Your task to perform on an android device: Open privacy settings Image 0: 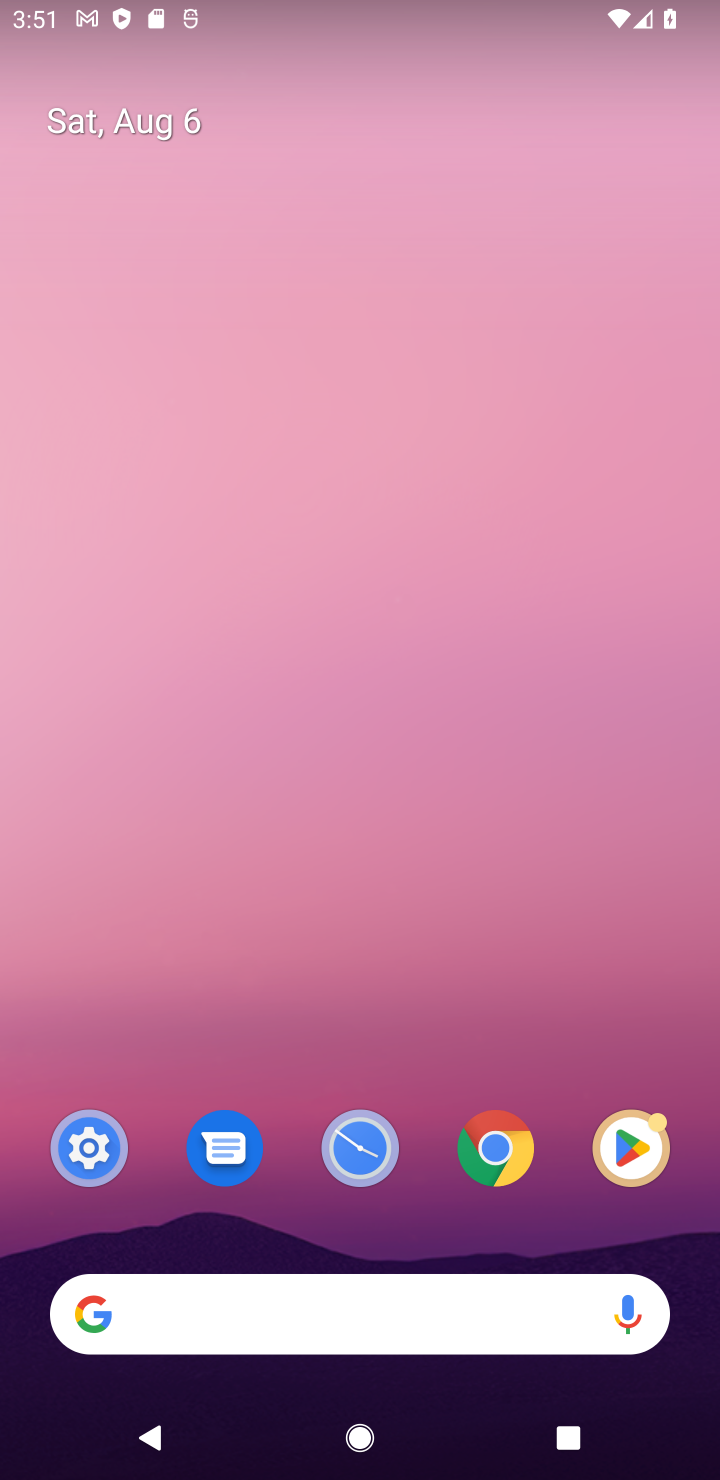
Step 0: click (106, 1171)
Your task to perform on an android device: Open privacy settings Image 1: 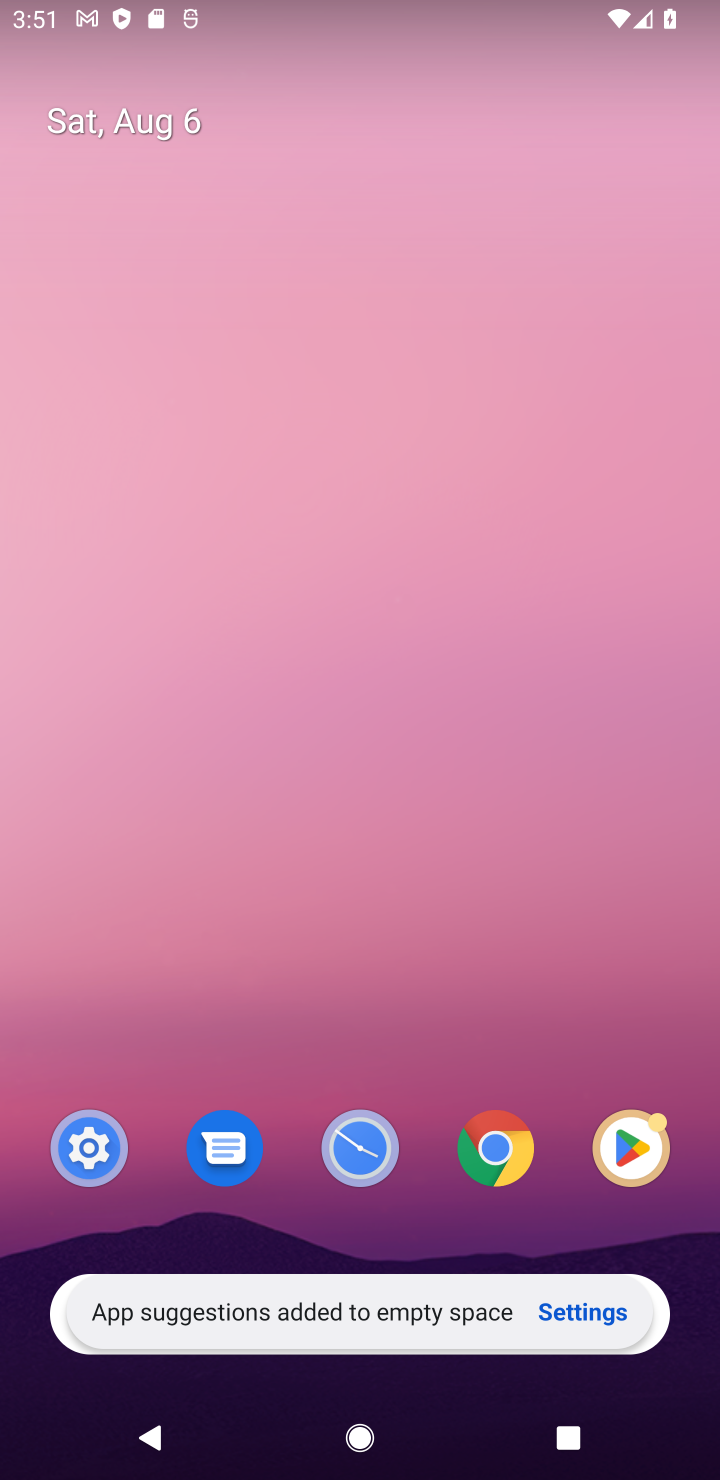
Step 1: click (95, 1140)
Your task to perform on an android device: Open privacy settings Image 2: 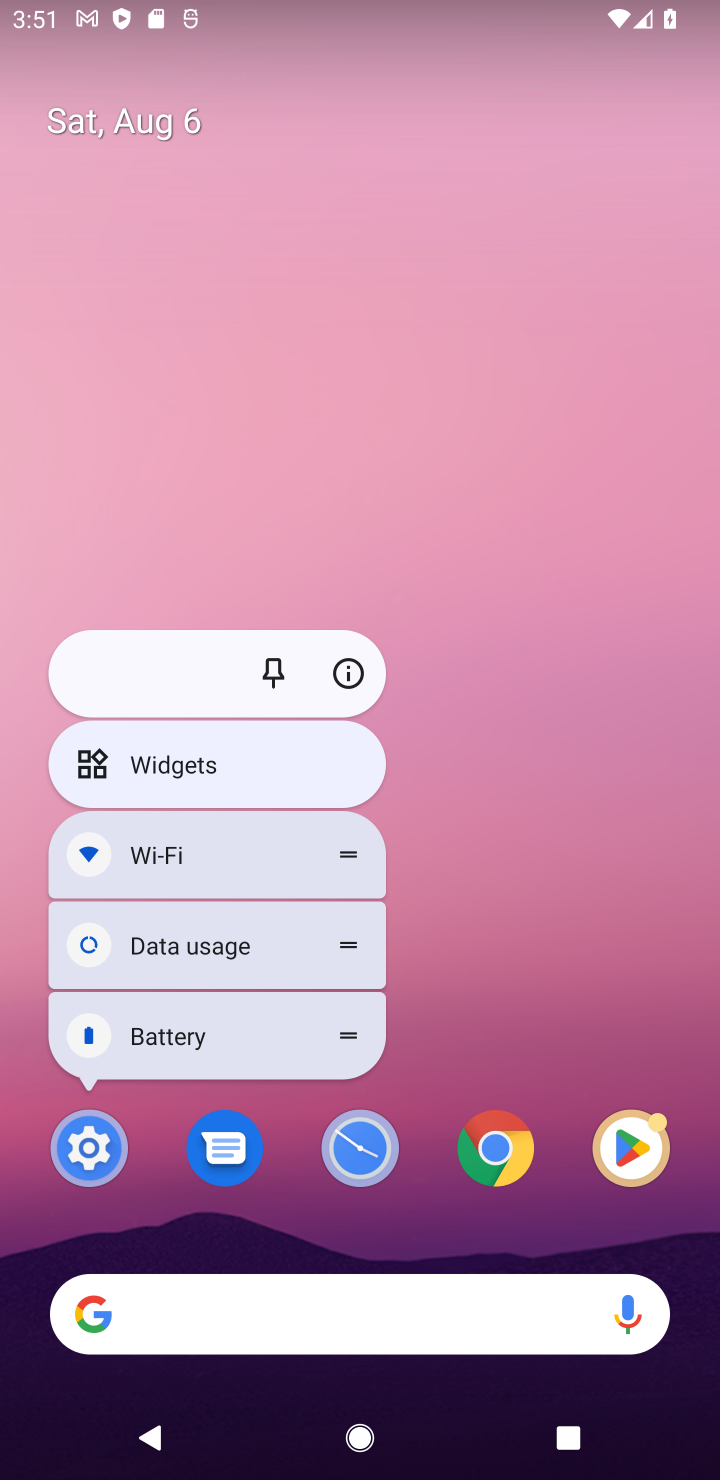
Step 2: click (95, 1140)
Your task to perform on an android device: Open privacy settings Image 3: 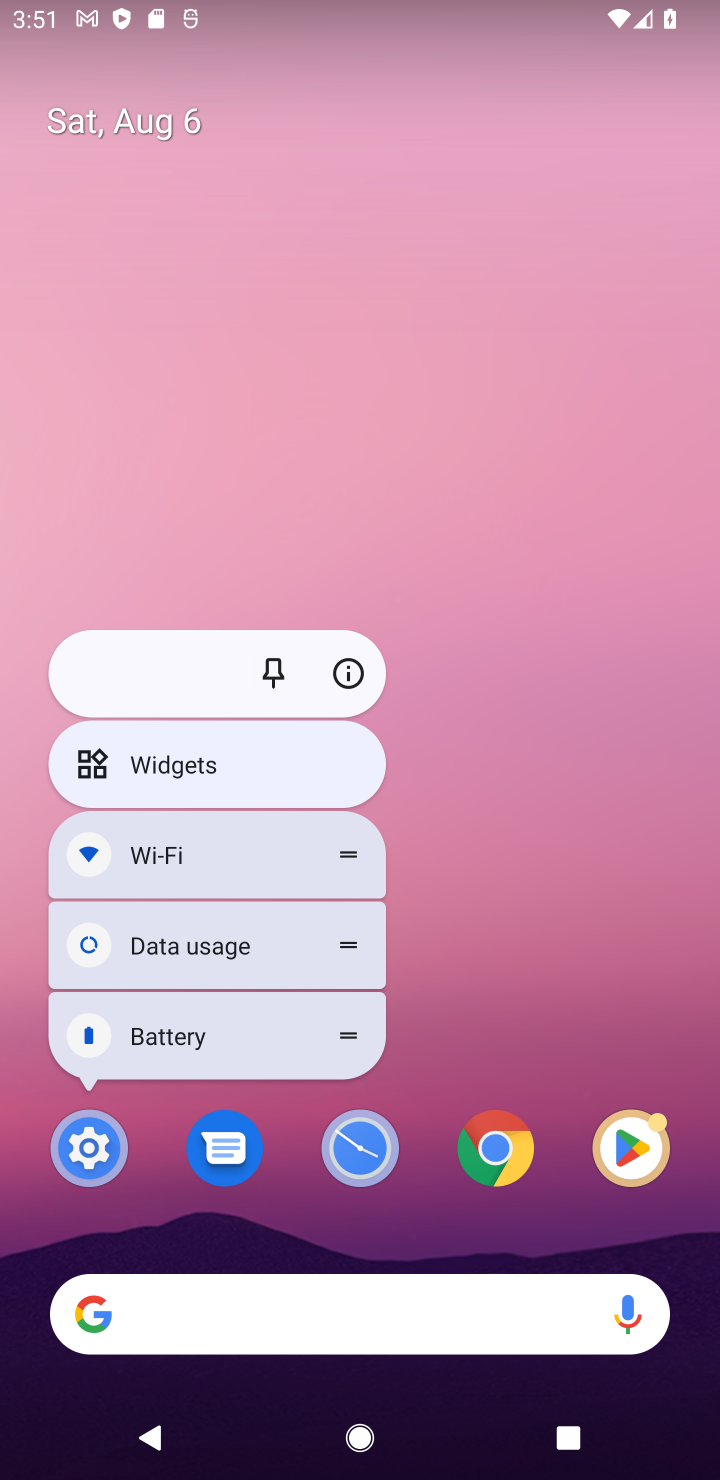
Step 3: click (347, 671)
Your task to perform on an android device: Open privacy settings Image 4: 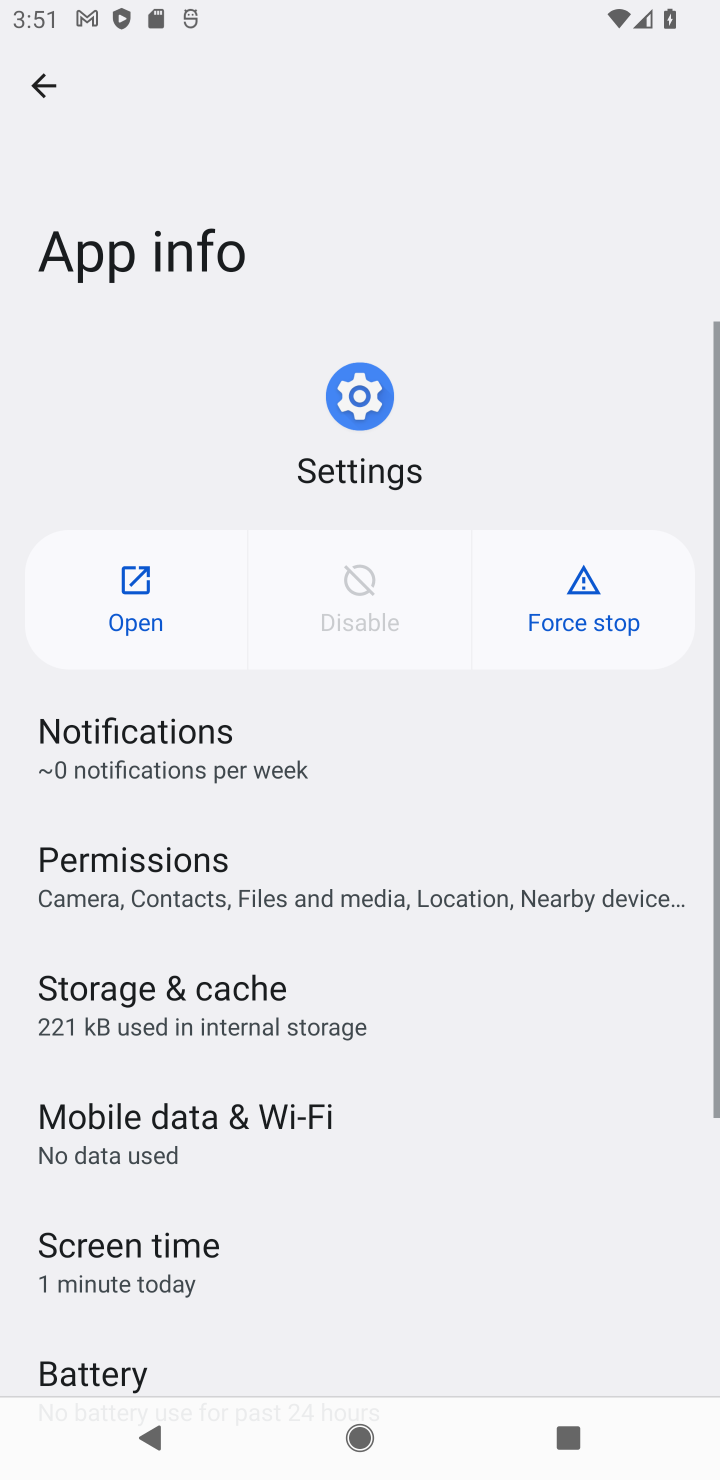
Step 4: click (133, 594)
Your task to perform on an android device: Open privacy settings Image 5: 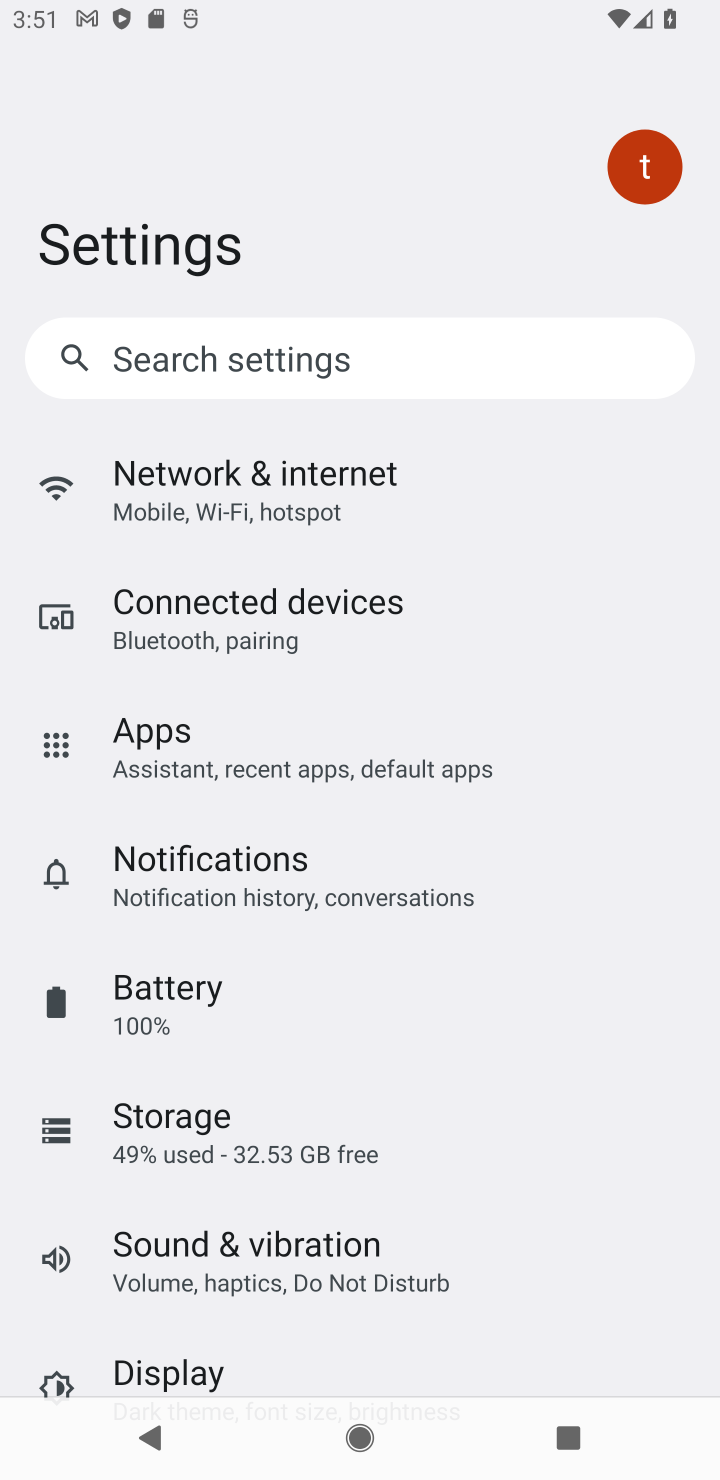
Step 5: drag from (239, 1072) to (236, 367)
Your task to perform on an android device: Open privacy settings Image 6: 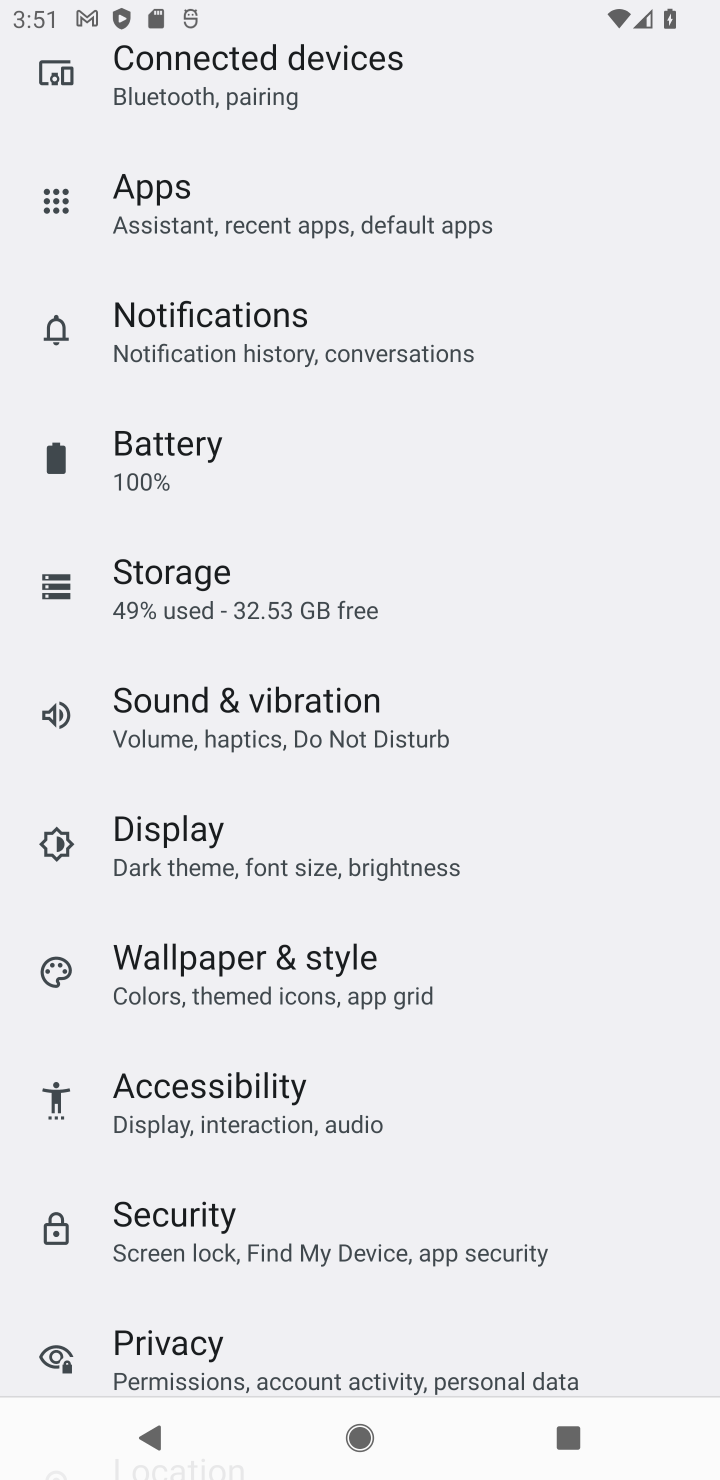
Step 6: drag from (374, 1259) to (413, 484)
Your task to perform on an android device: Open privacy settings Image 7: 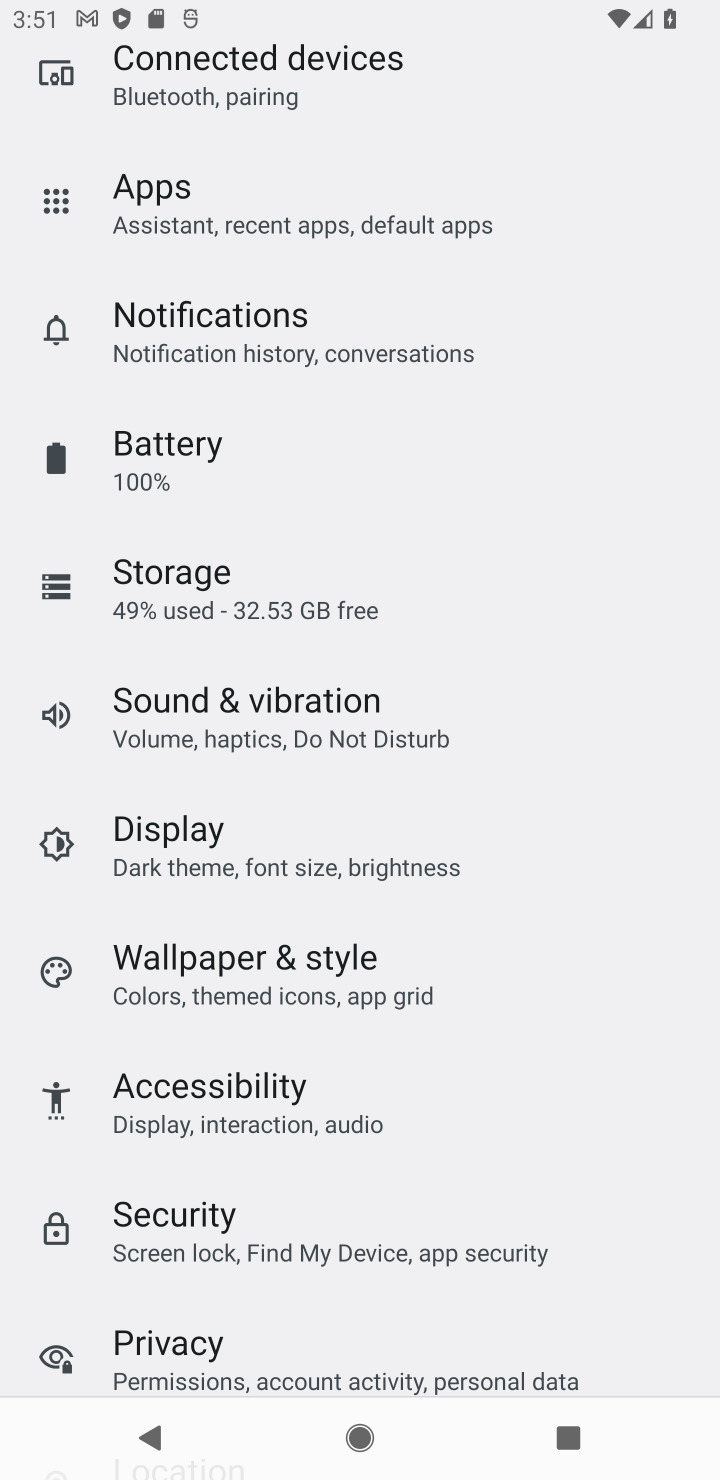
Step 7: click (256, 1351)
Your task to perform on an android device: Open privacy settings Image 8: 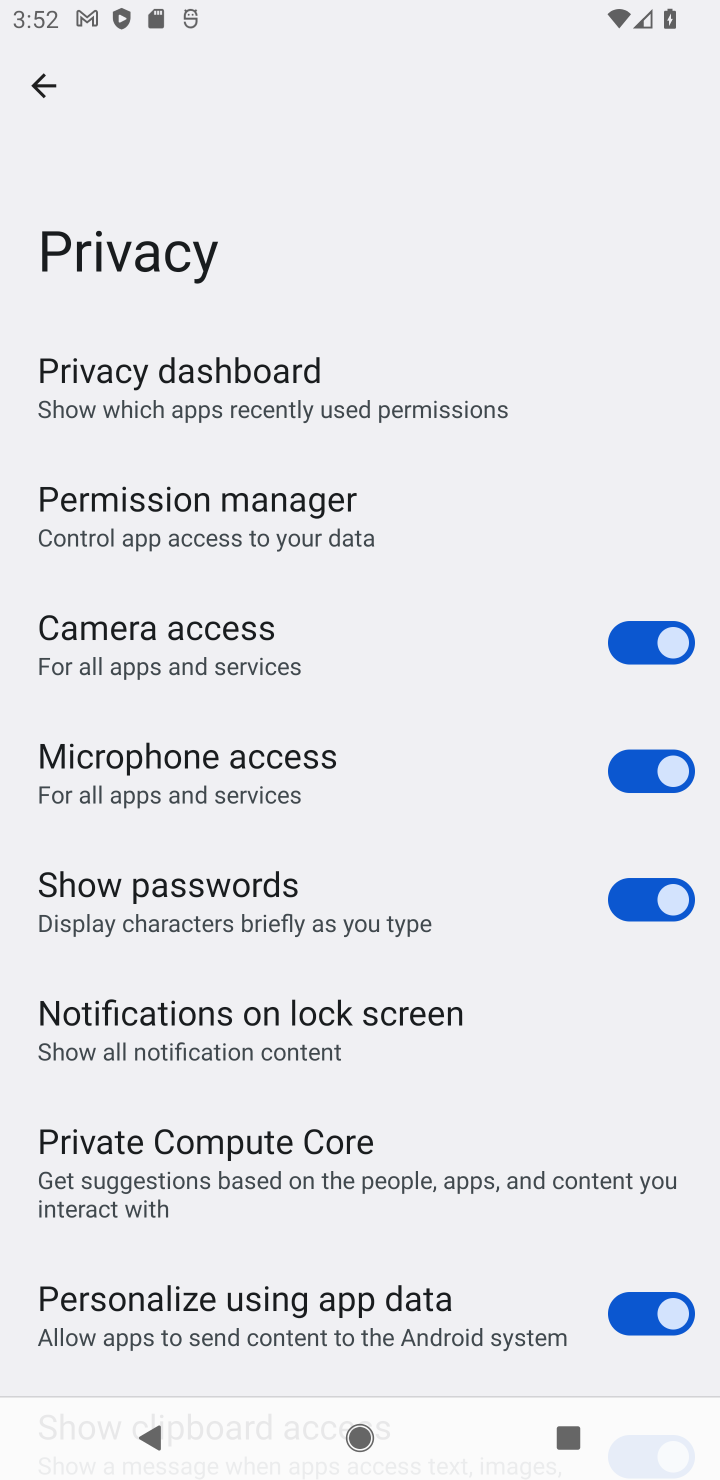
Step 8: task complete